Your task to perform on an android device: Play the last video I watched on Youtube Image 0: 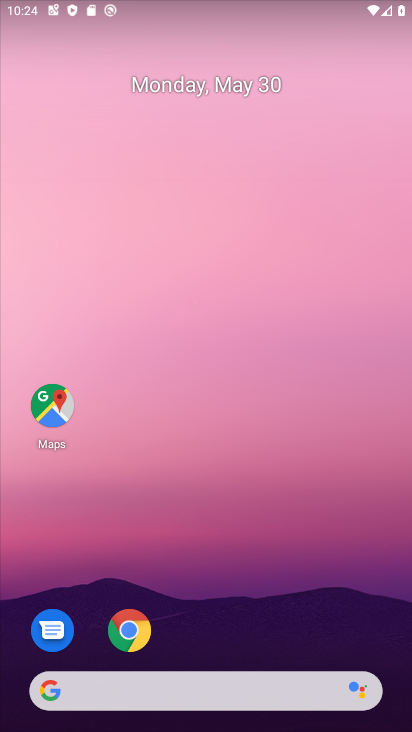
Step 0: drag from (181, 662) to (282, 40)
Your task to perform on an android device: Play the last video I watched on Youtube Image 1: 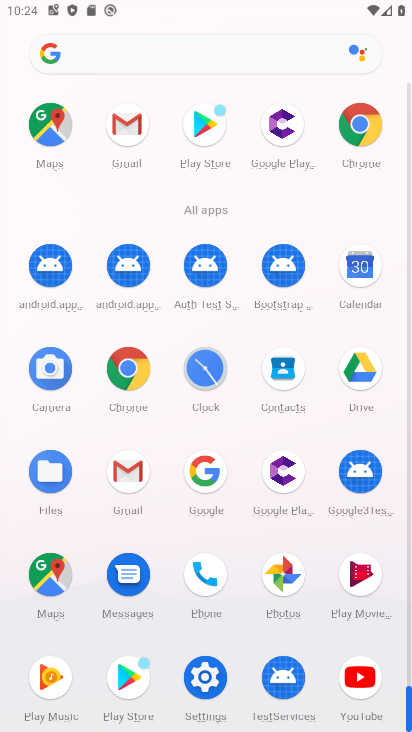
Step 1: click (365, 688)
Your task to perform on an android device: Play the last video I watched on Youtube Image 2: 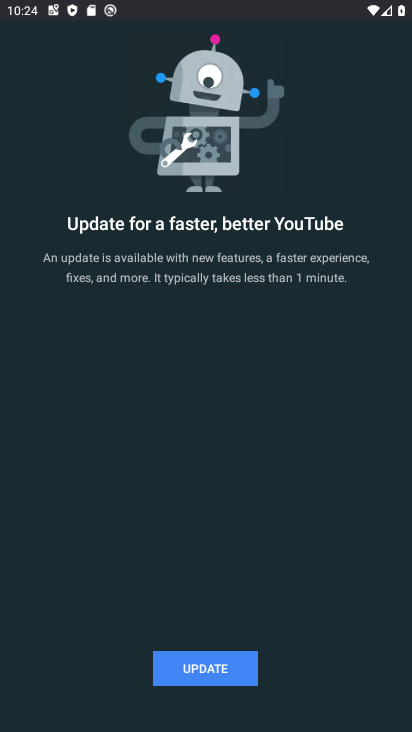
Step 2: click (228, 680)
Your task to perform on an android device: Play the last video I watched on Youtube Image 3: 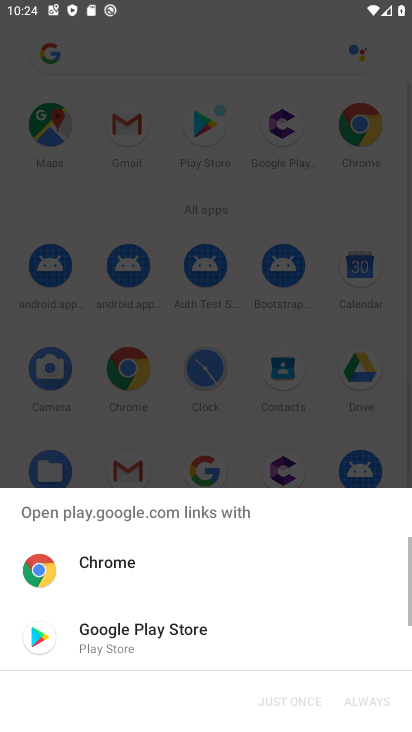
Step 3: click (270, 650)
Your task to perform on an android device: Play the last video I watched on Youtube Image 4: 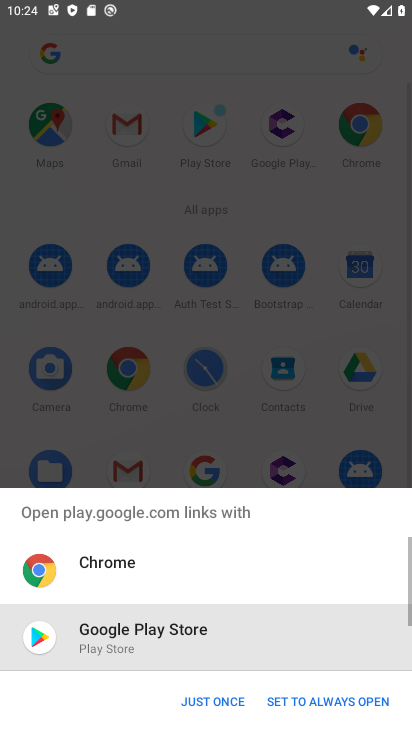
Step 4: click (216, 709)
Your task to perform on an android device: Play the last video I watched on Youtube Image 5: 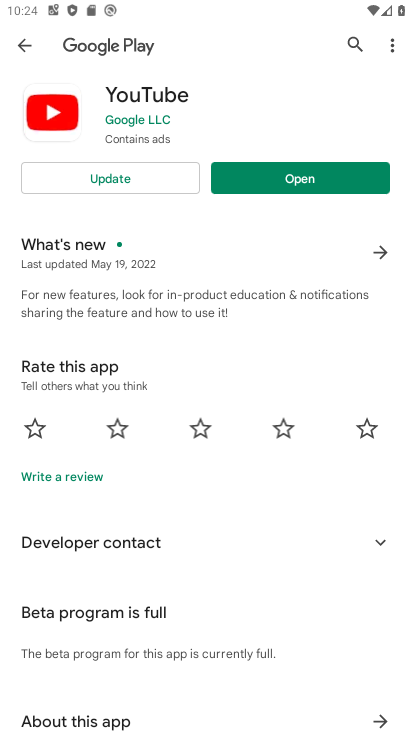
Step 5: click (151, 174)
Your task to perform on an android device: Play the last video I watched on Youtube Image 6: 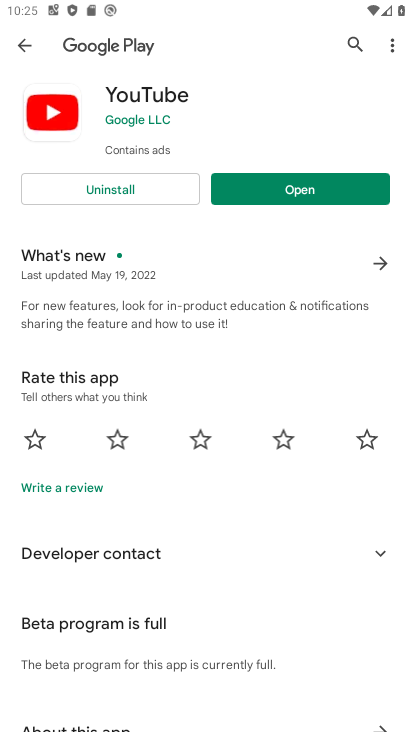
Step 6: click (330, 199)
Your task to perform on an android device: Play the last video I watched on Youtube Image 7: 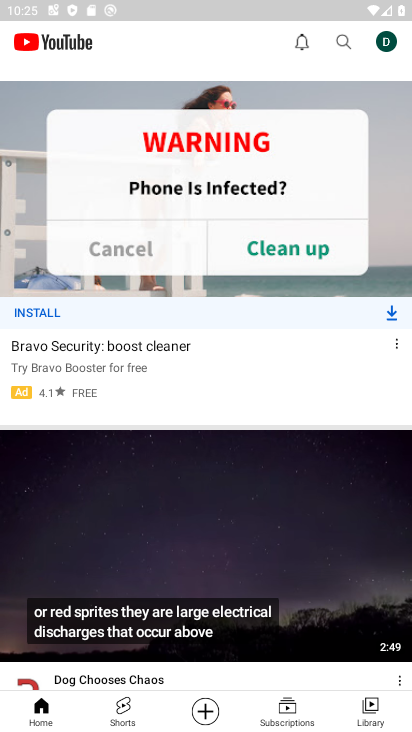
Step 7: click (357, 706)
Your task to perform on an android device: Play the last video I watched on Youtube Image 8: 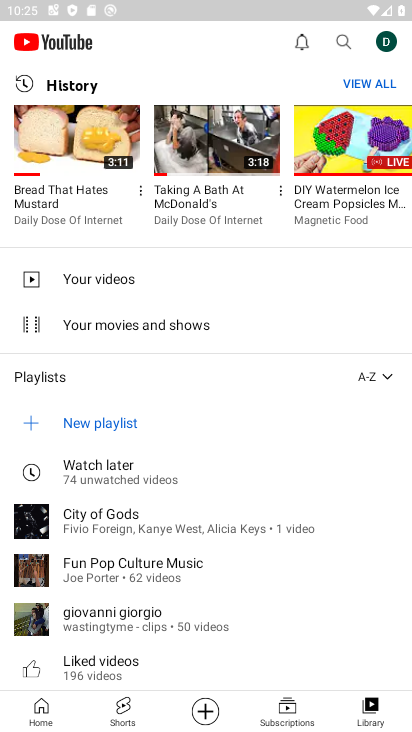
Step 8: click (94, 124)
Your task to perform on an android device: Play the last video I watched on Youtube Image 9: 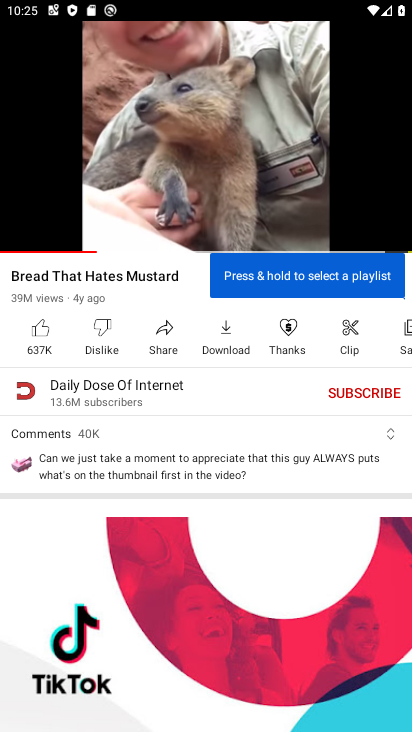
Step 9: task complete